Your task to perform on an android device: turn off sleep mode Image 0: 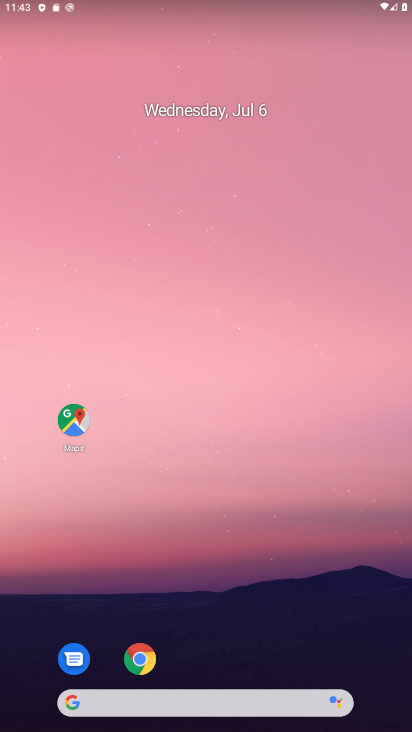
Step 0: drag from (213, 706) to (138, 155)
Your task to perform on an android device: turn off sleep mode Image 1: 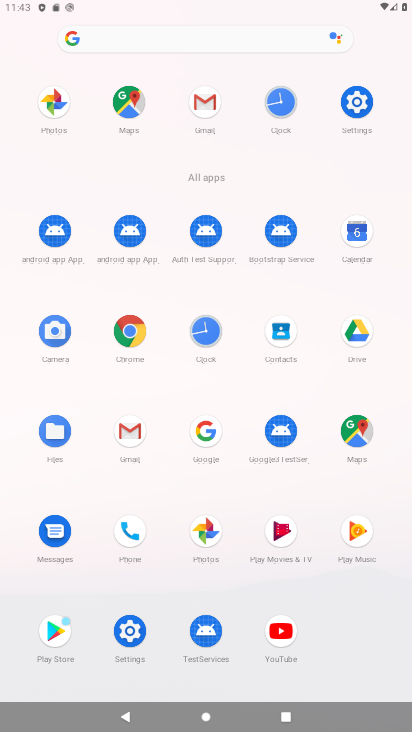
Step 1: task complete